Your task to perform on an android device: Open eBay Image 0: 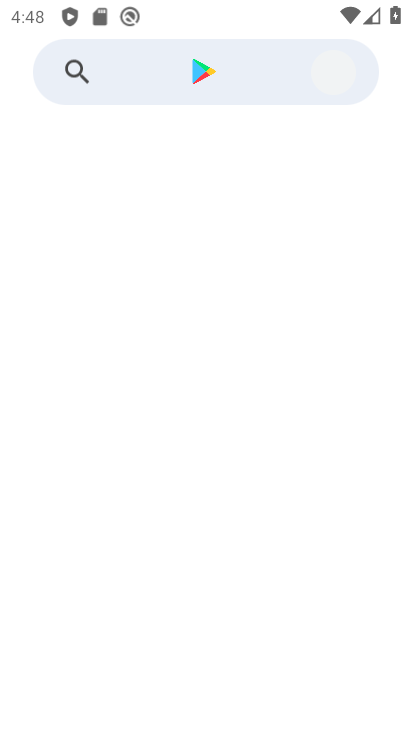
Step 0: press home button
Your task to perform on an android device: Open eBay Image 1: 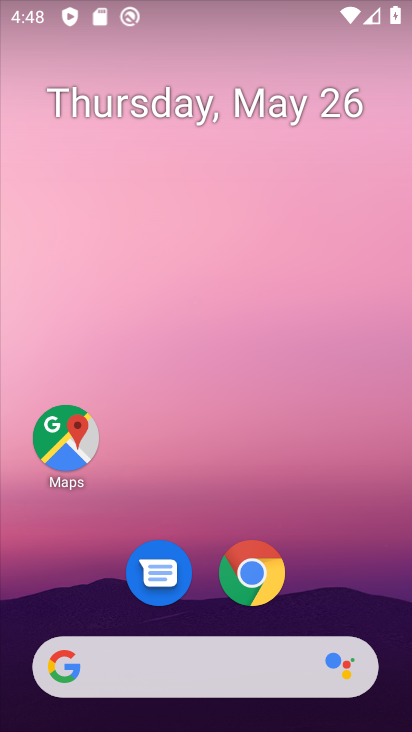
Step 1: click (258, 579)
Your task to perform on an android device: Open eBay Image 2: 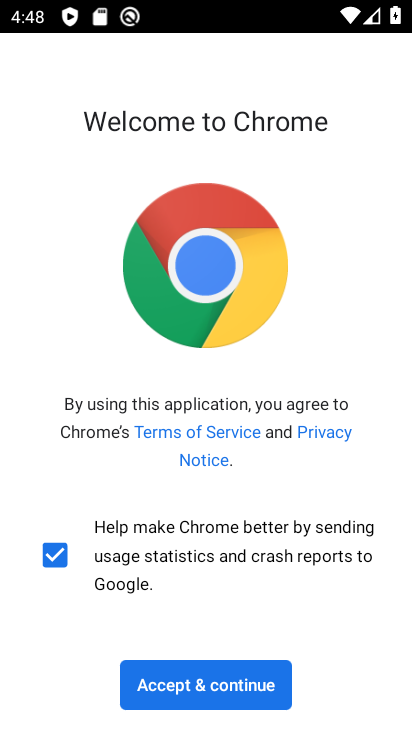
Step 2: click (173, 672)
Your task to perform on an android device: Open eBay Image 3: 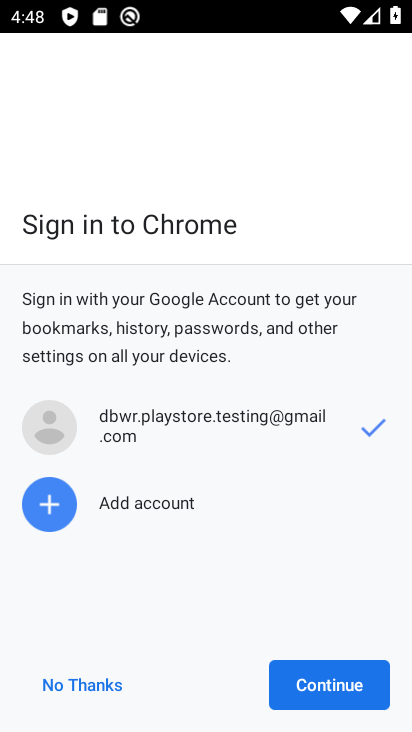
Step 3: click (335, 684)
Your task to perform on an android device: Open eBay Image 4: 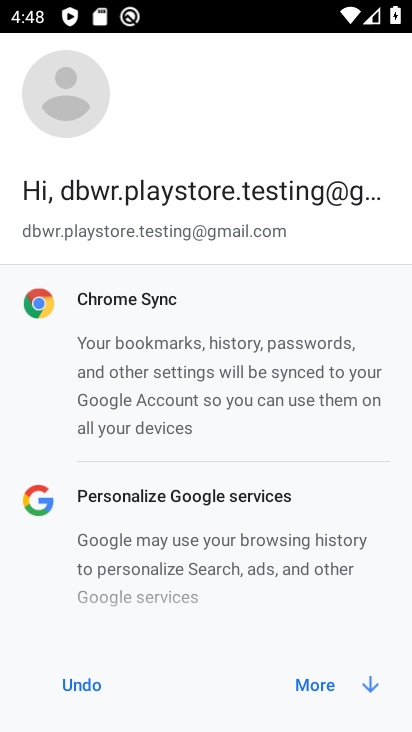
Step 4: click (323, 692)
Your task to perform on an android device: Open eBay Image 5: 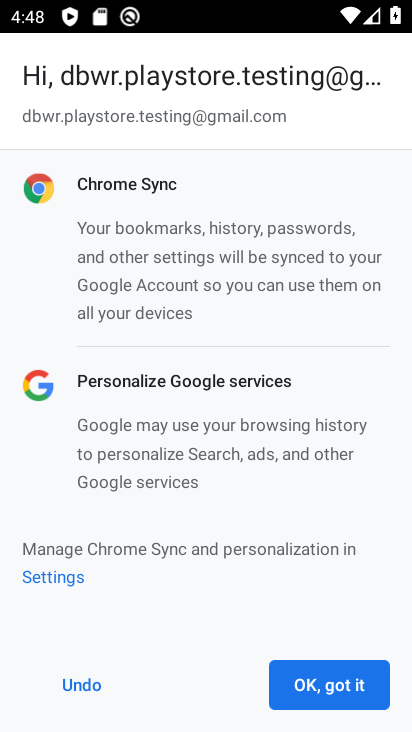
Step 5: click (322, 691)
Your task to perform on an android device: Open eBay Image 6: 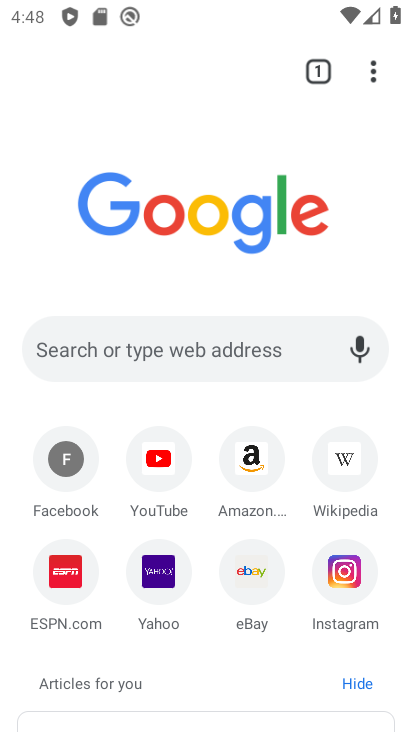
Step 6: click (259, 586)
Your task to perform on an android device: Open eBay Image 7: 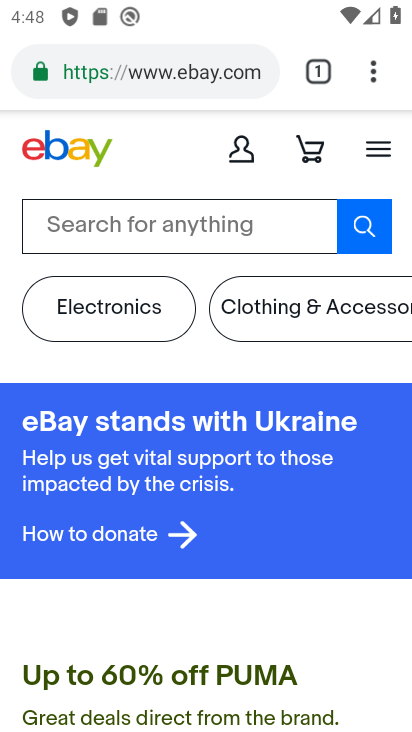
Step 7: task complete